Your task to perform on an android device: Open settings on Google Maps Image 0: 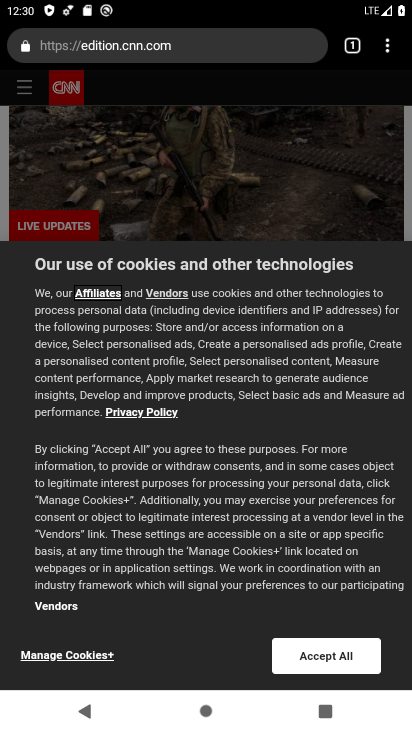
Step 0: press home button
Your task to perform on an android device: Open settings on Google Maps Image 1: 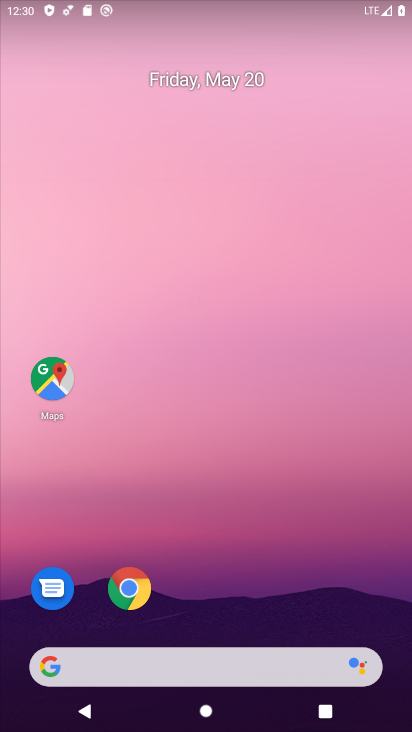
Step 1: click (48, 380)
Your task to perform on an android device: Open settings on Google Maps Image 2: 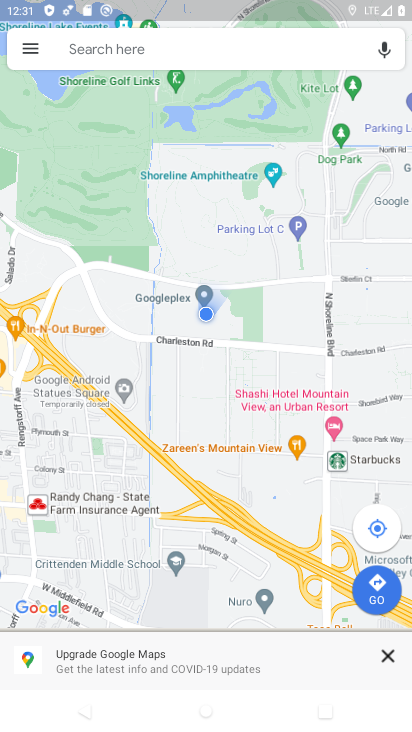
Step 2: click (32, 43)
Your task to perform on an android device: Open settings on Google Maps Image 3: 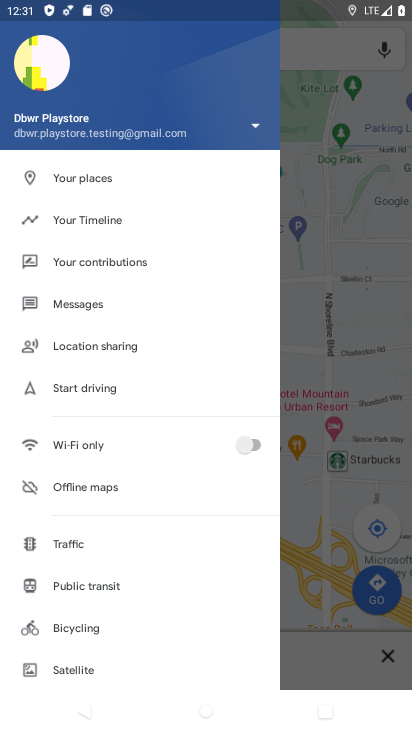
Step 3: drag from (176, 657) to (187, 59)
Your task to perform on an android device: Open settings on Google Maps Image 4: 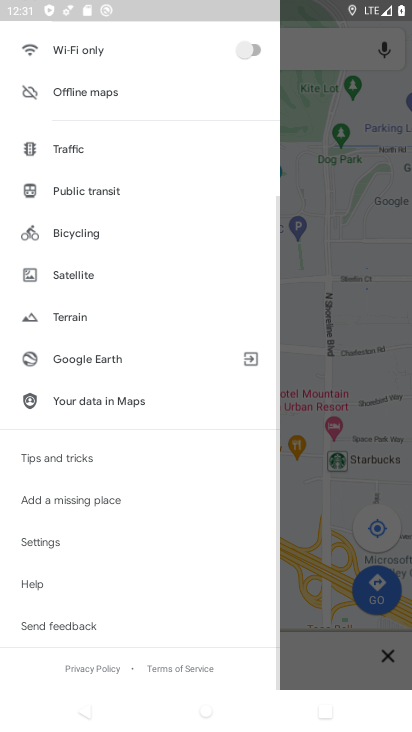
Step 4: click (53, 540)
Your task to perform on an android device: Open settings on Google Maps Image 5: 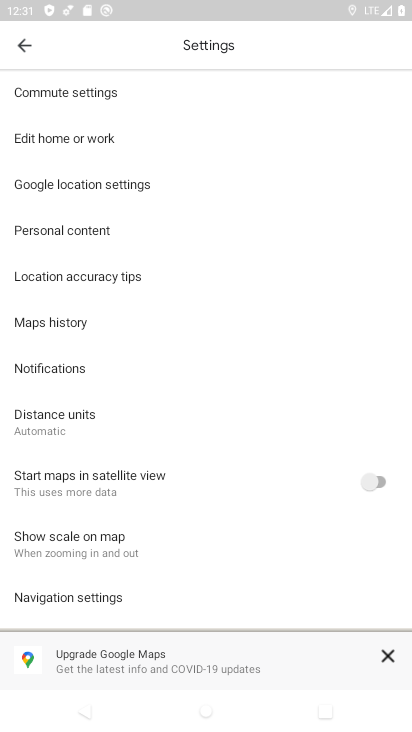
Step 5: task complete